Your task to perform on an android device: open chrome privacy settings Image 0: 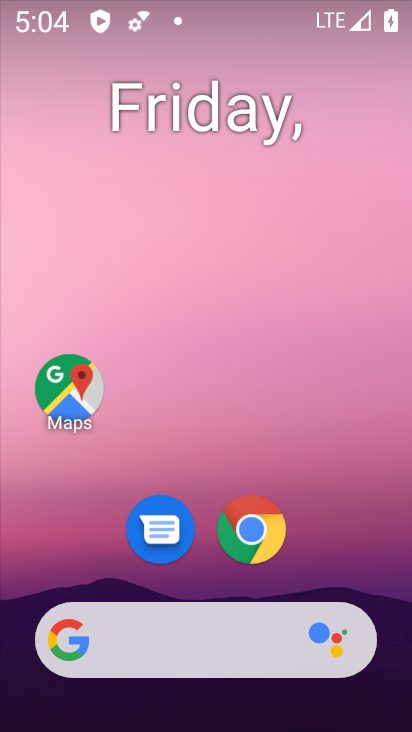
Step 0: click (250, 535)
Your task to perform on an android device: open chrome privacy settings Image 1: 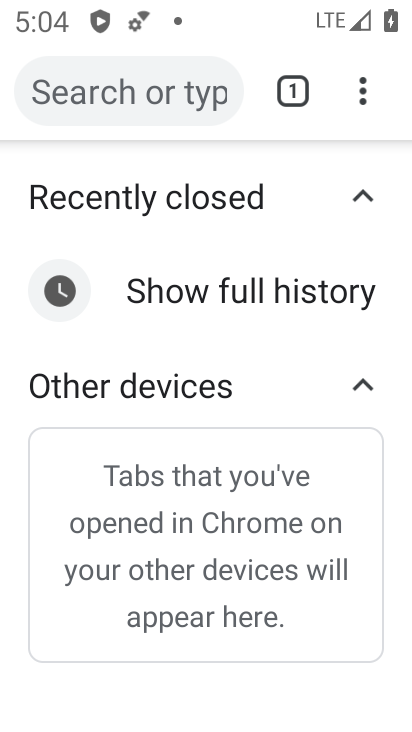
Step 1: click (364, 90)
Your task to perform on an android device: open chrome privacy settings Image 2: 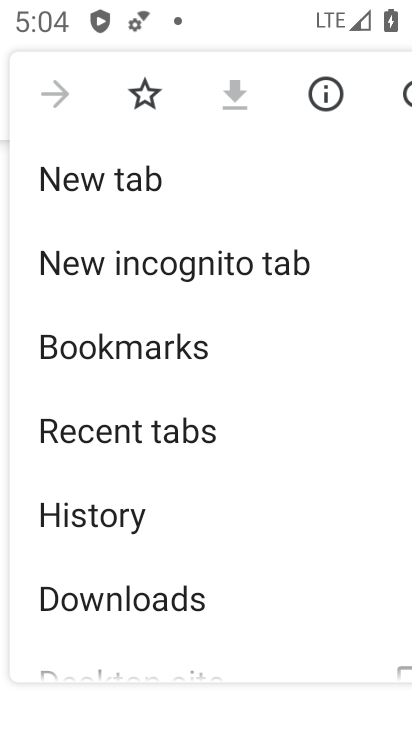
Step 2: drag from (277, 551) to (237, 111)
Your task to perform on an android device: open chrome privacy settings Image 3: 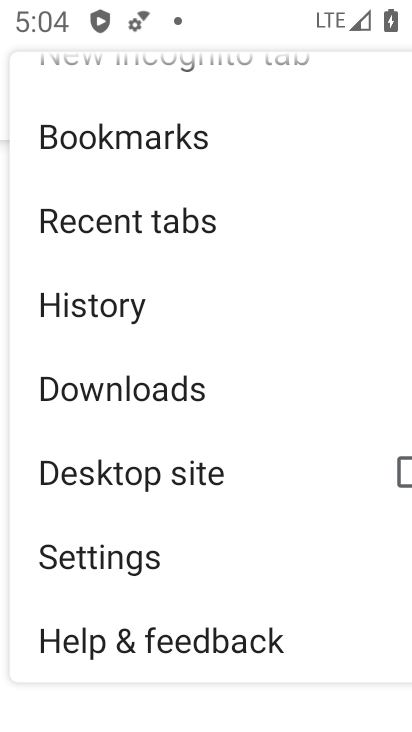
Step 3: click (134, 557)
Your task to perform on an android device: open chrome privacy settings Image 4: 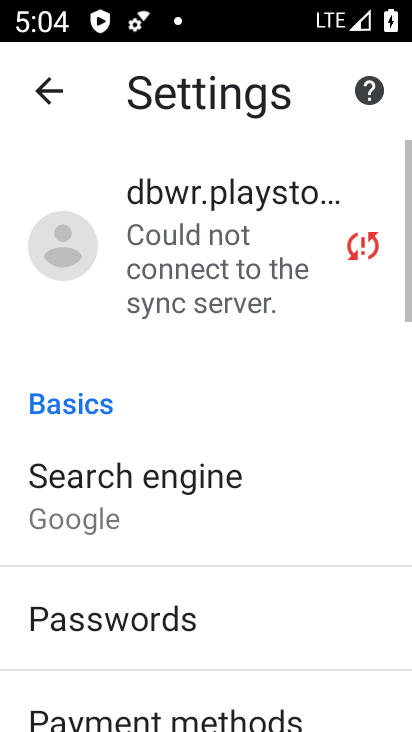
Step 4: drag from (268, 600) to (264, 173)
Your task to perform on an android device: open chrome privacy settings Image 5: 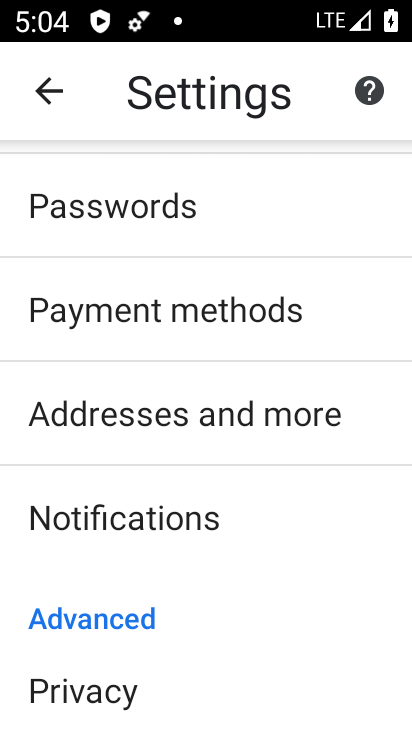
Step 5: click (108, 680)
Your task to perform on an android device: open chrome privacy settings Image 6: 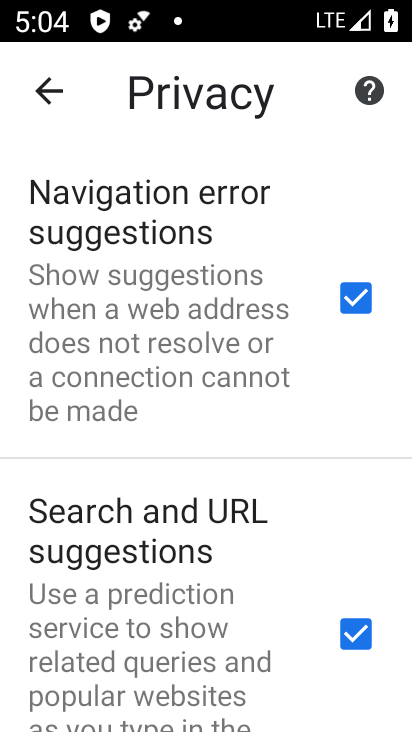
Step 6: task complete